Your task to perform on an android device: manage bookmarks in the chrome app Image 0: 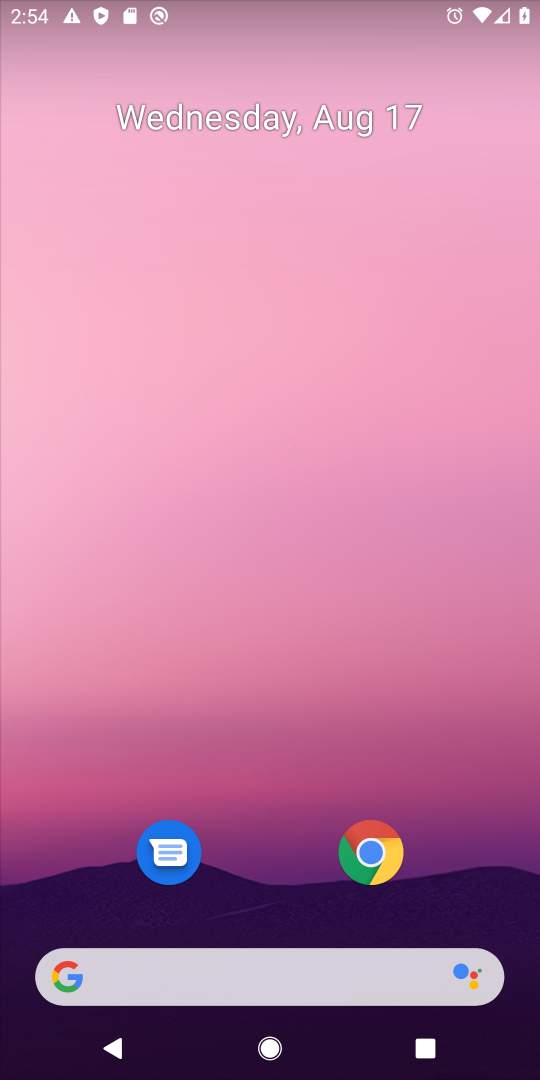
Step 0: drag from (257, 813) to (316, 83)
Your task to perform on an android device: manage bookmarks in the chrome app Image 1: 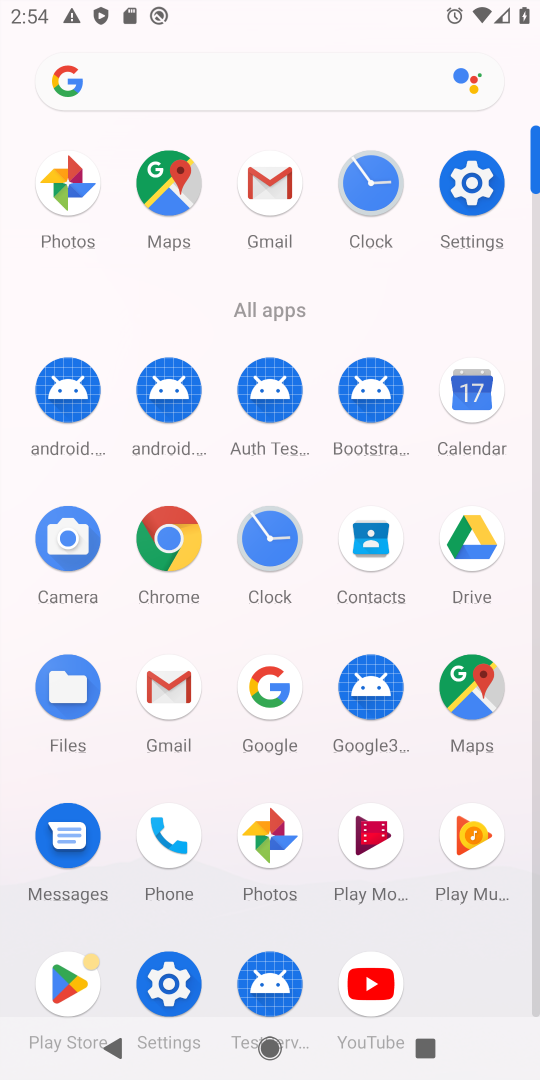
Step 1: click (172, 531)
Your task to perform on an android device: manage bookmarks in the chrome app Image 2: 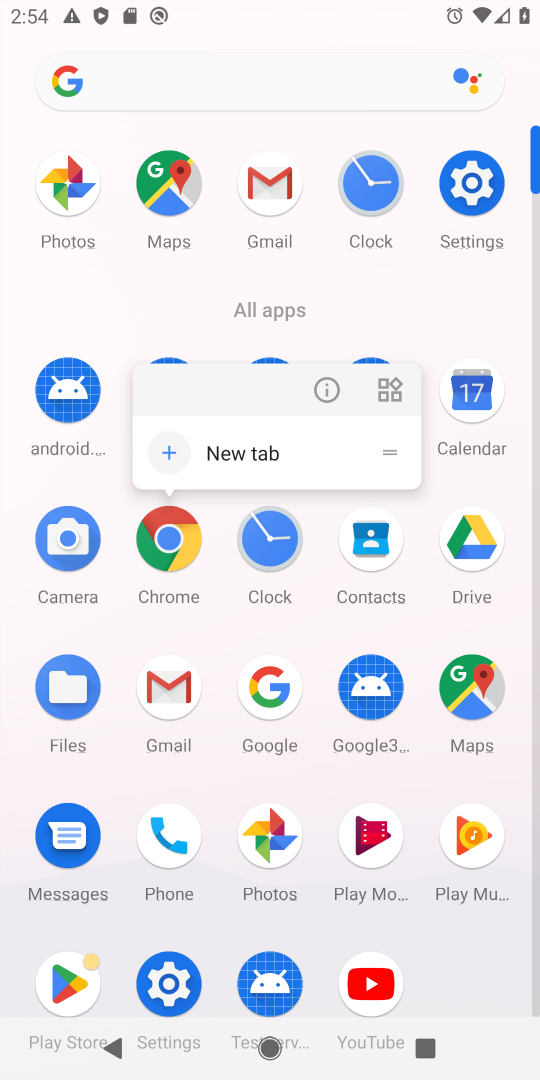
Step 2: click (173, 535)
Your task to perform on an android device: manage bookmarks in the chrome app Image 3: 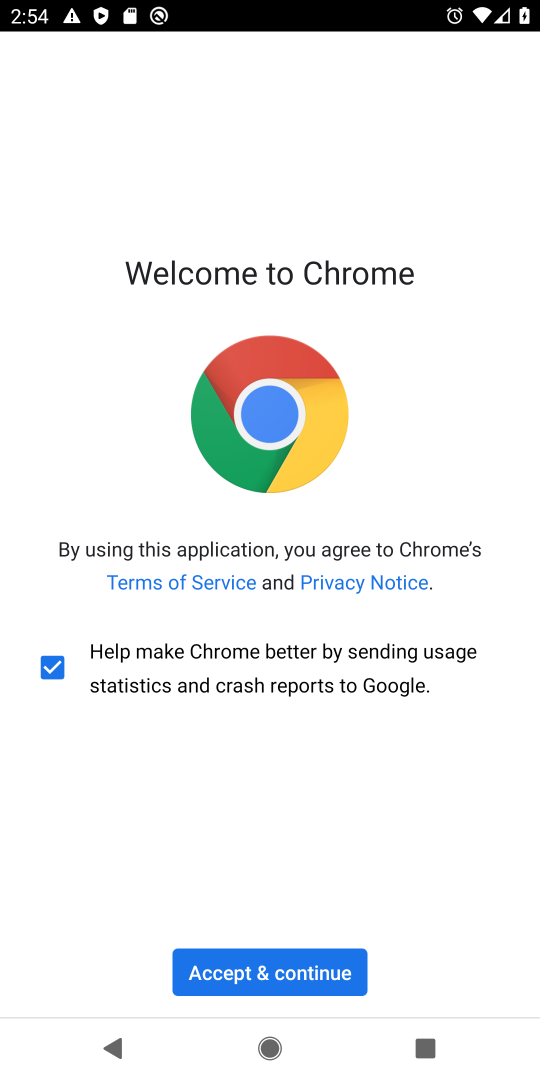
Step 3: drag from (233, 947) to (266, 986)
Your task to perform on an android device: manage bookmarks in the chrome app Image 4: 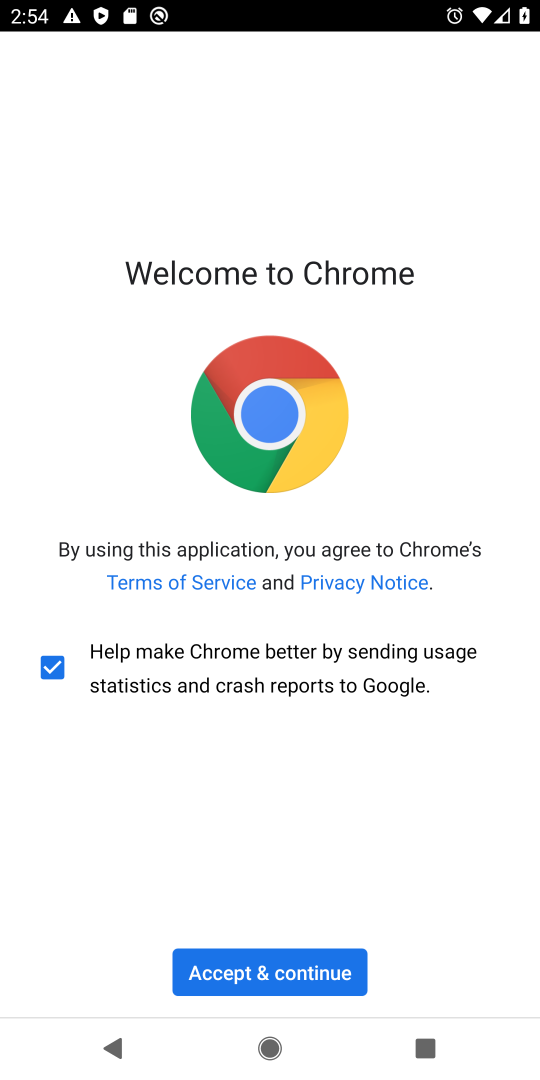
Step 4: click (266, 965)
Your task to perform on an android device: manage bookmarks in the chrome app Image 5: 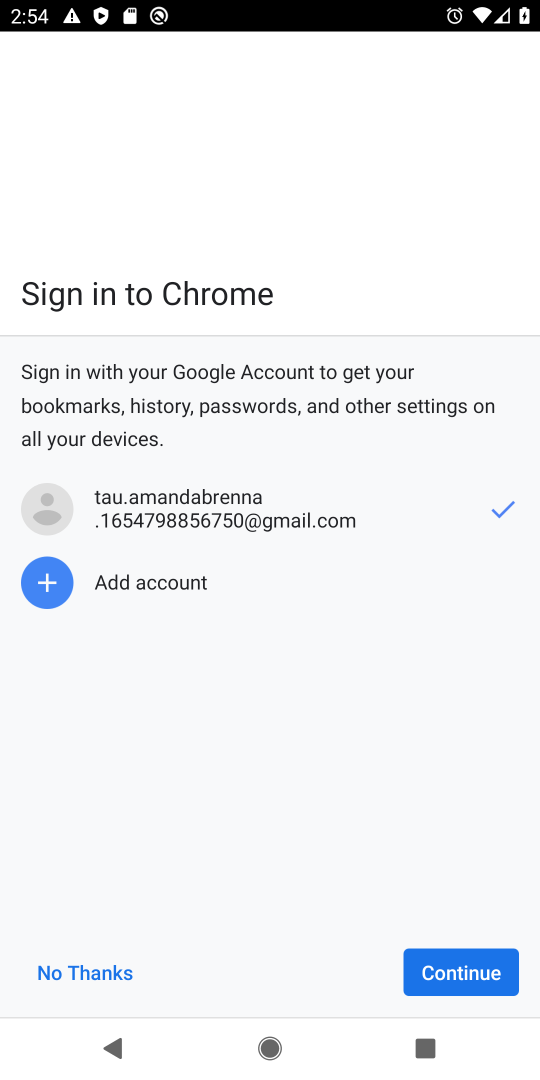
Step 5: click (445, 955)
Your task to perform on an android device: manage bookmarks in the chrome app Image 6: 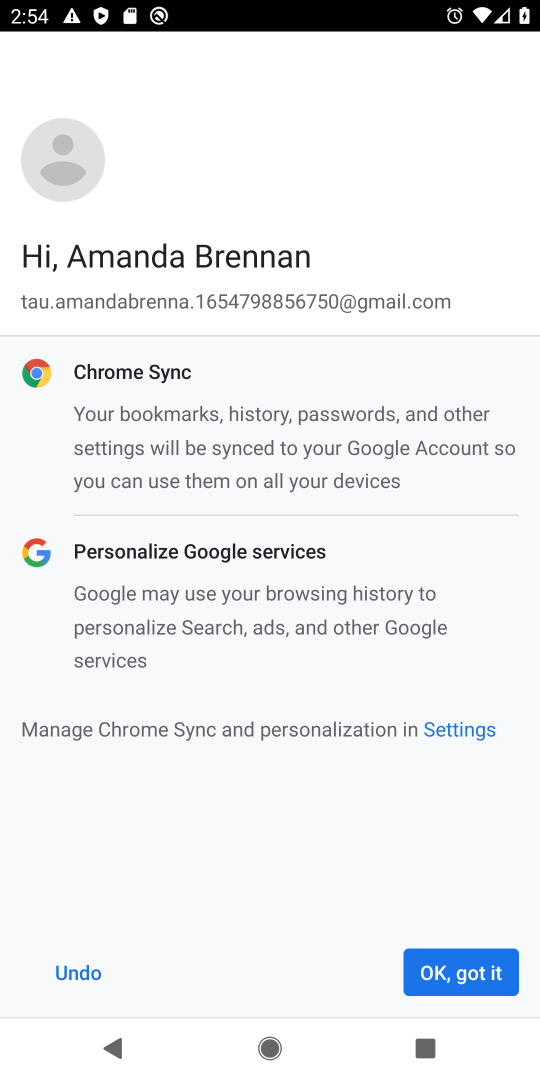
Step 6: click (452, 969)
Your task to perform on an android device: manage bookmarks in the chrome app Image 7: 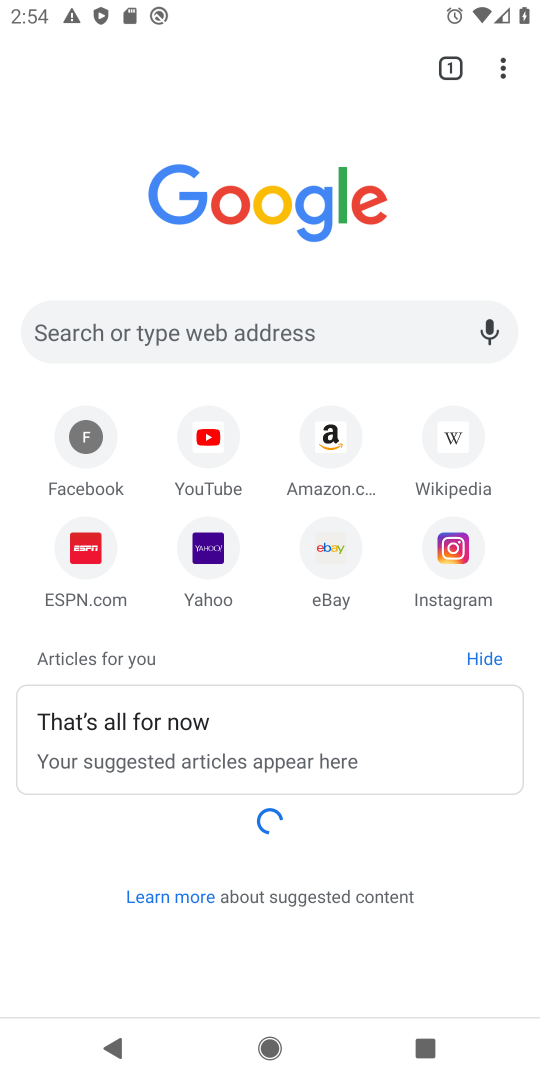
Step 7: drag from (501, 59) to (281, 267)
Your task to perform on an android device: manage bookmarks in the chrome app Image 8: 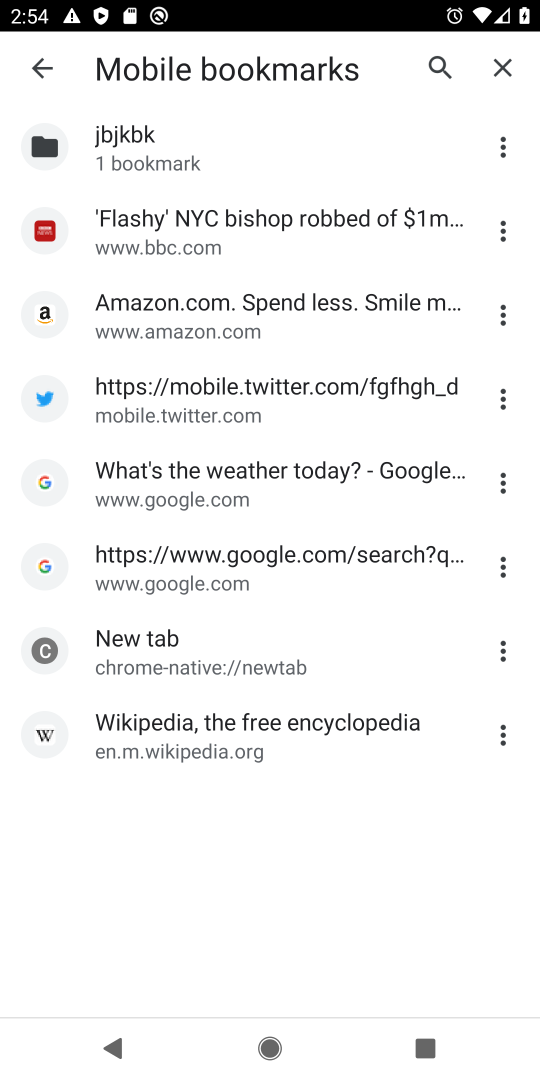
Step 8: click (509, 304)
Your task to perform on an android device: manage bookmarks in the chrome app Image 9: 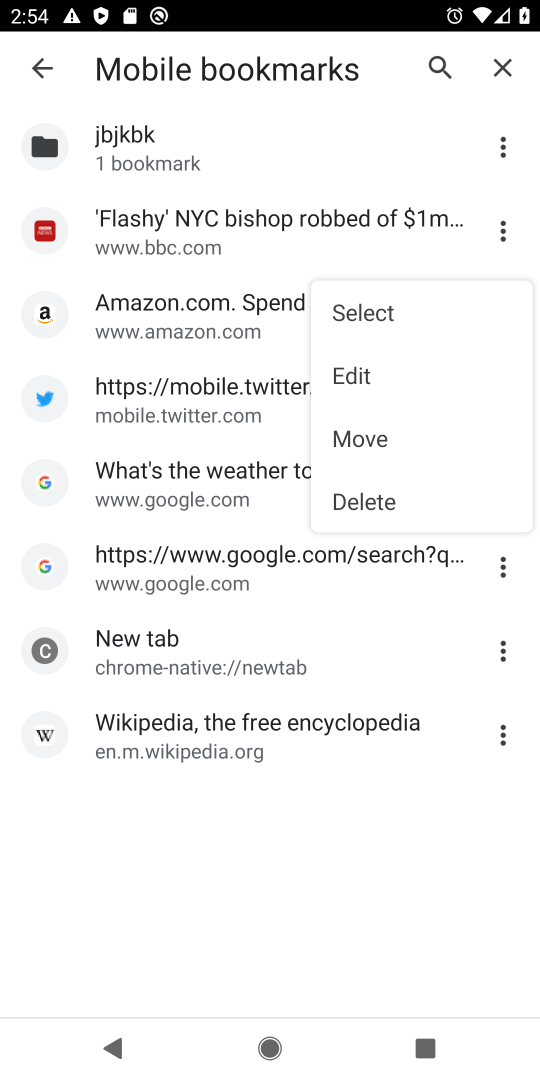
Step 9: click (389, 376)
Your task to perform on an android device: manage bookmarks in the chrome app Image 10: 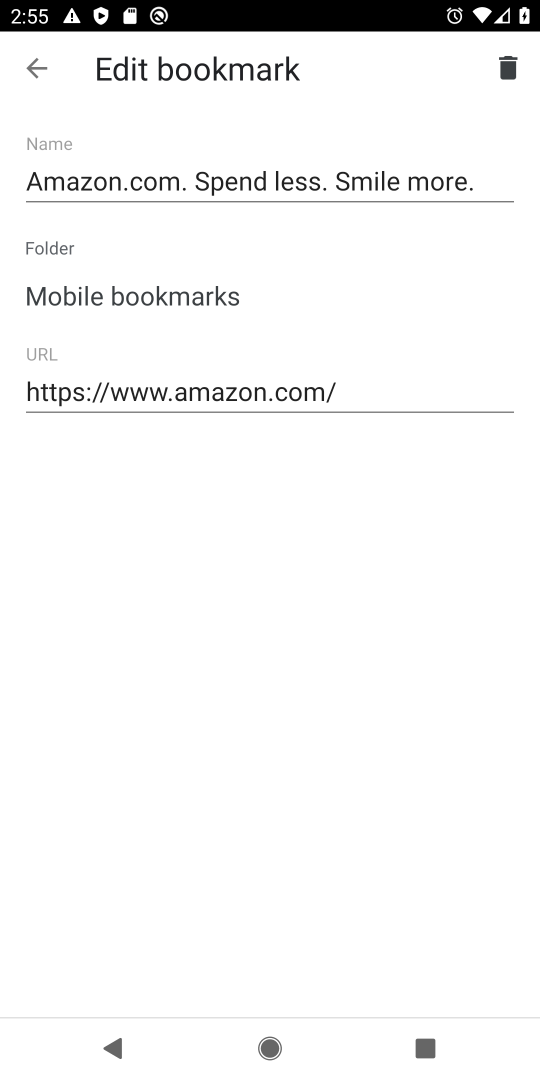
Step 10: click (229, 180)
Your task to perform on an android device: manage bookmarks in the chrome app Image 11: 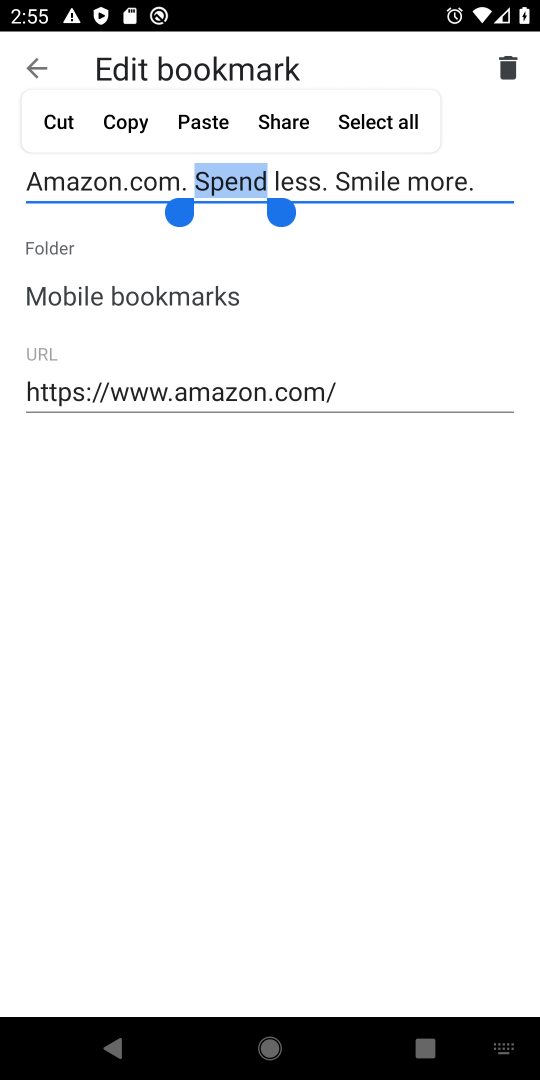
Step 11: click (56, 125)
Your task to perform on an android device: manage bookmarks in the chrome app Image 12: 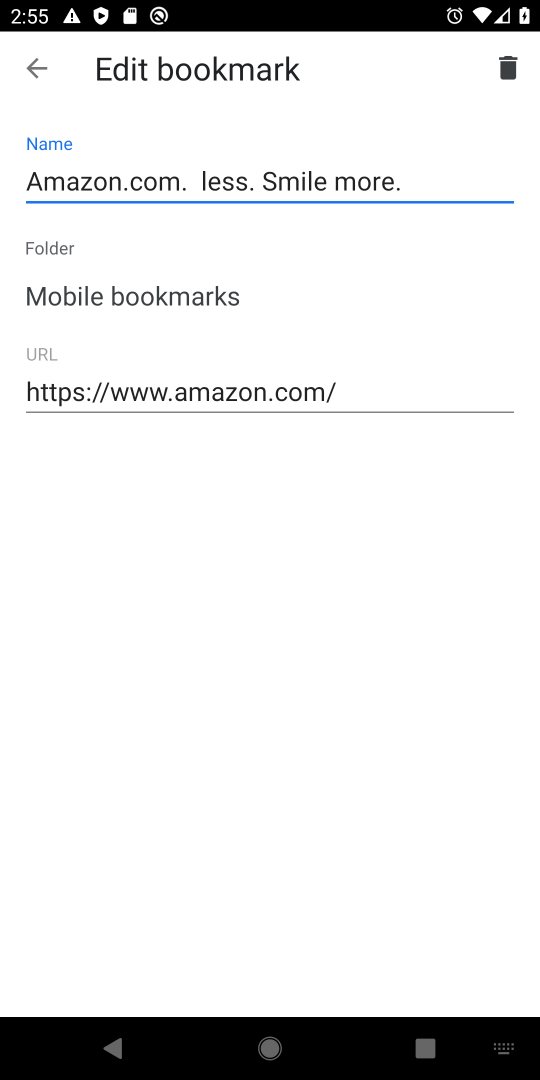
Step 12: task complete